Your task to perform on an android device: turn on the 12-hour format for clock Image 0: 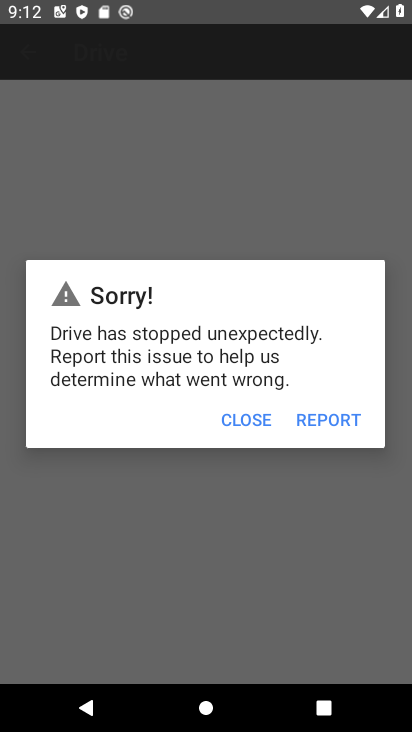
Step 0: press home button
Your task to perform on an android device: turn on the 12-hour format for clock Image 1: 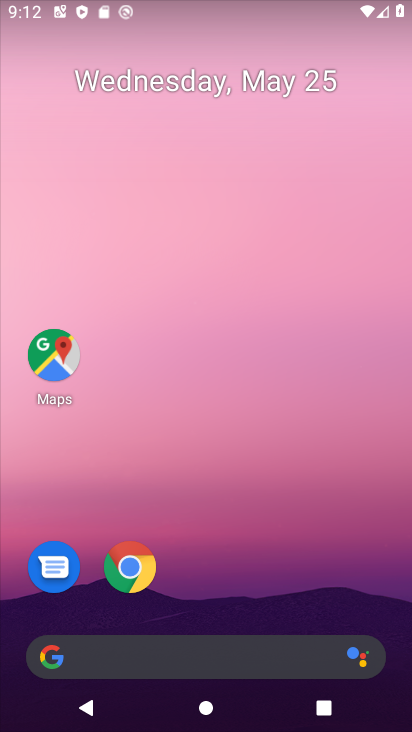
Step 1: drag from (318, 532) to (322, 132)
Your task to perform on an android device: turn on the 12-hour format for clock Image 2: 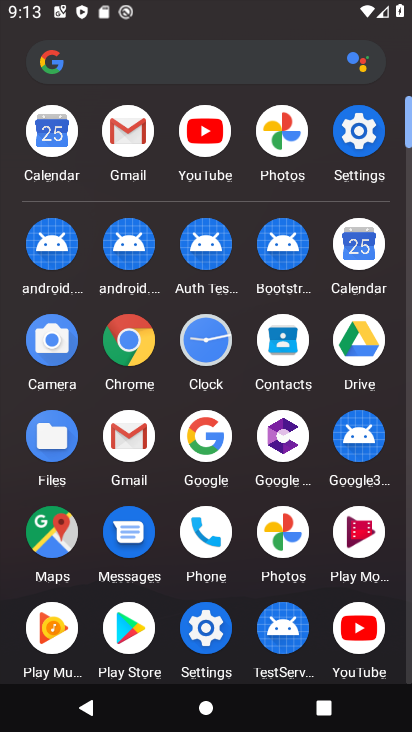
Step 2: click (355, 159)
Your task to perform on an android device: turn on the 12-hour format for clock Image 3: 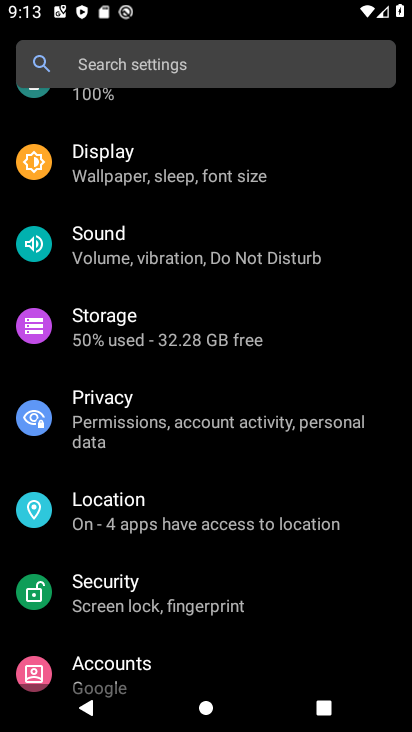
Step 3: press home button
Your task to perform on an android device: turn on the 12-hour format for clock Image 4: 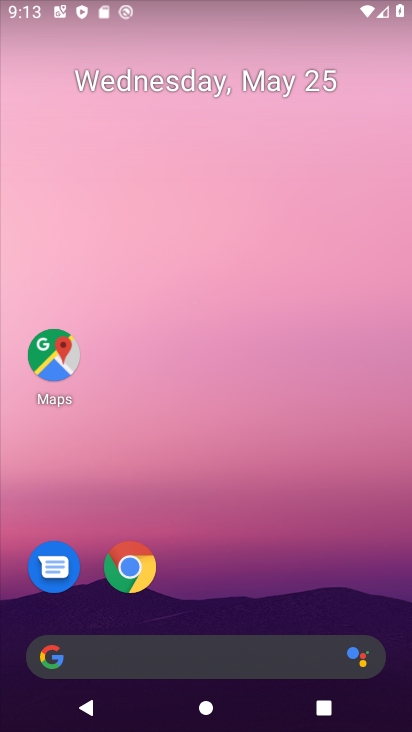
Step 4: drag from (296, 542) to (328, 1)
Your task to perform on an android device: turn on the 12-hour format for clock Image 5: 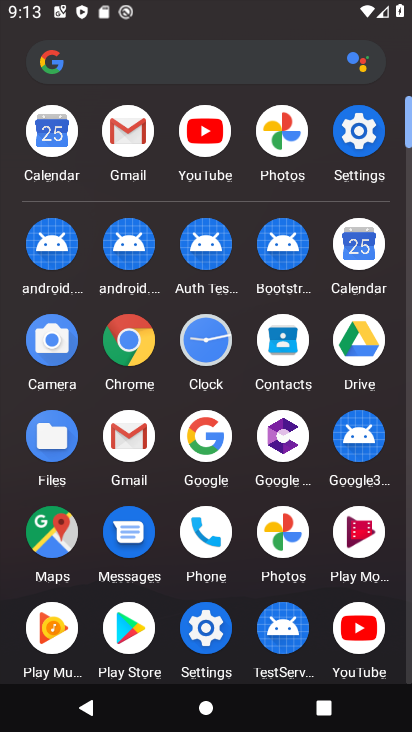
Step 5: click (217, 345)
Your task to perform on an android device: turn on the 12-hour format for clock Image 6: 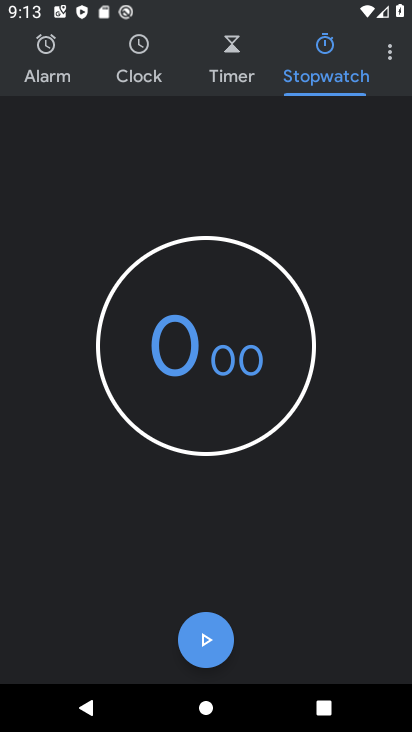
Step 6: task complete